Your task to perform on an android device: Go to CNN.com Image 0: 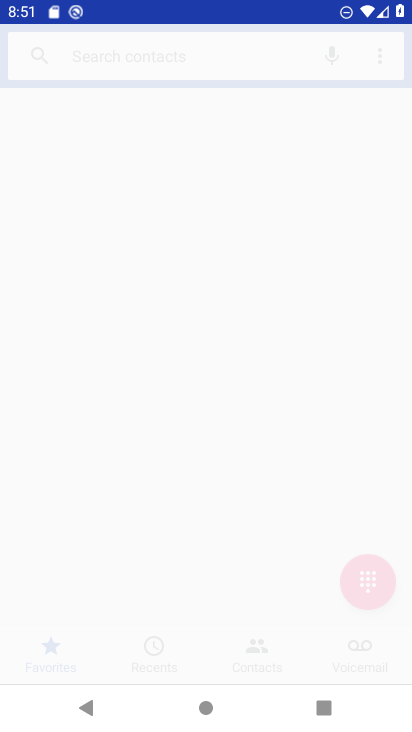
Step 0: click (128, 570)
Your task to perform on an android device: Go to CNN.com Image 1: 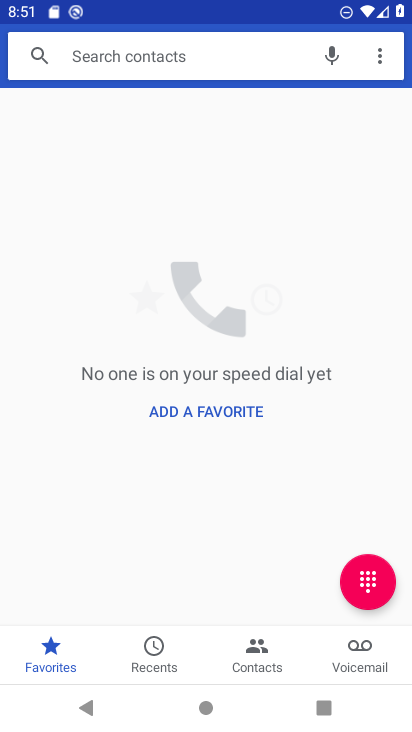
Step 1: press home button
Your task to perform on an android device: Go to CNN.com Image 2: 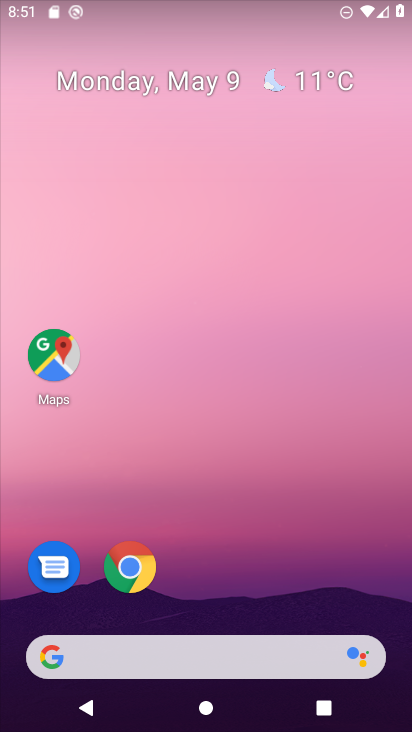
Step 2: click (125, 587)
Your task to perform on an android device: Go to CNN.com Image 3: 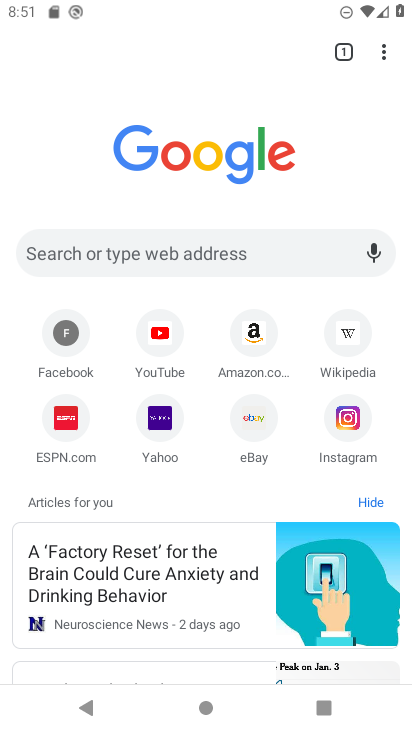
Step 3: click (237, 257)
Your task to perform on an android device: Go to CNN.com Image 4: 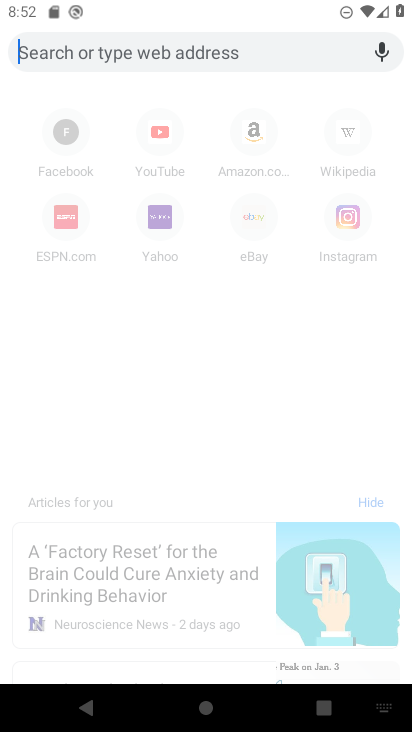
Step 4: type "CNN.com"
Your task to perform on an android device: Go to CNN.com Image 5: 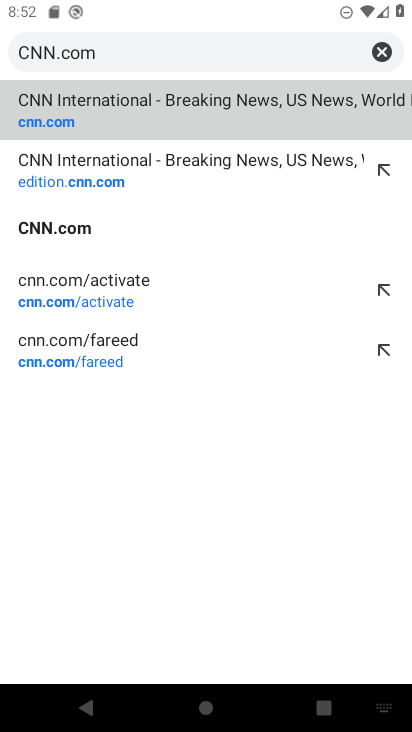
Step 5: click (102, 236)
Your task to perform on an android device: Go to CNN.com Image 6: 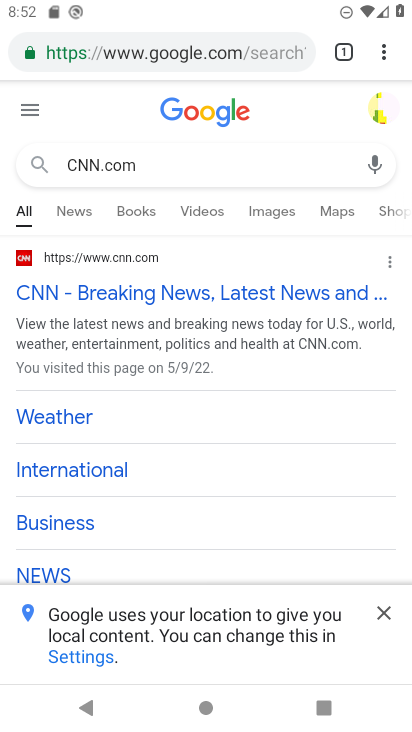
Step 6: click (188, 292)
Your task to perform on an android device: Go to CNN.com Image 7: 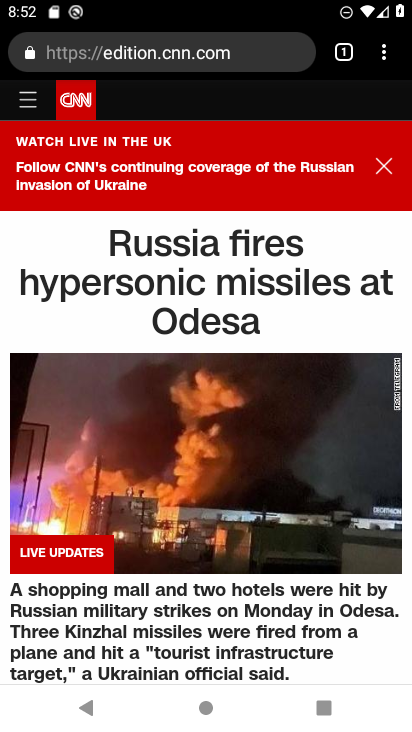
Step 7: task complete